Your task to perform on an android device: turn on javascript in the chrome app Image 0: 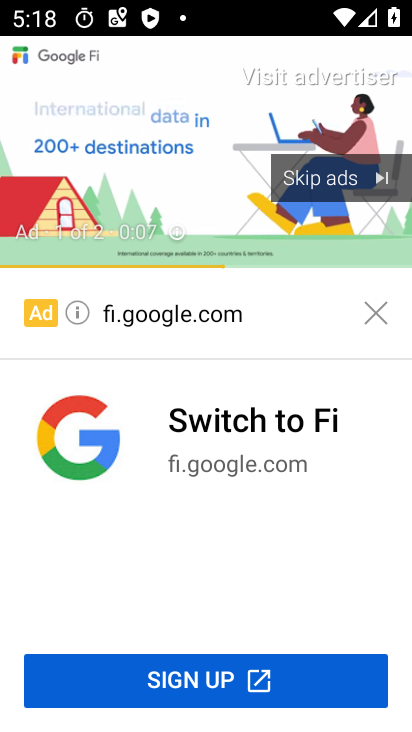
Step 0: press home button
Your task to perform on an android device: turn on javascript in the chrome app Image 1: 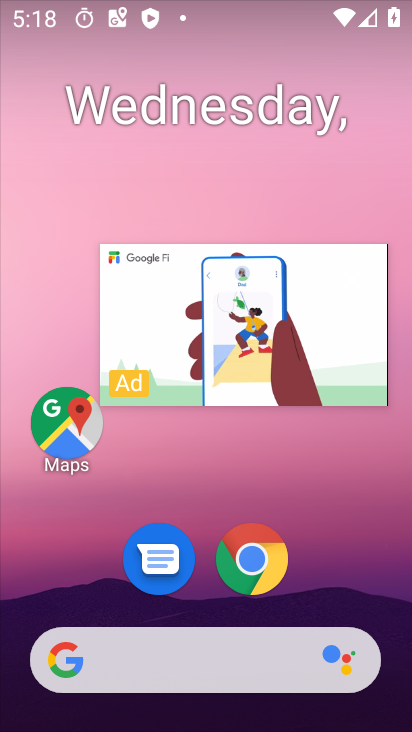
Step 1: click (271, 559)
Your task to perform on an android device: turn on javascript in the chrome app Image 2: 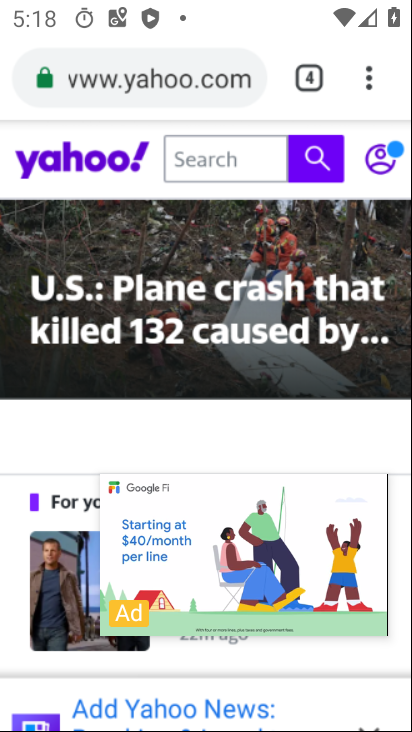
Step 2: click (370, 75)
Your task to perform on an android device: turn on javascript in the chrome app Image 3: 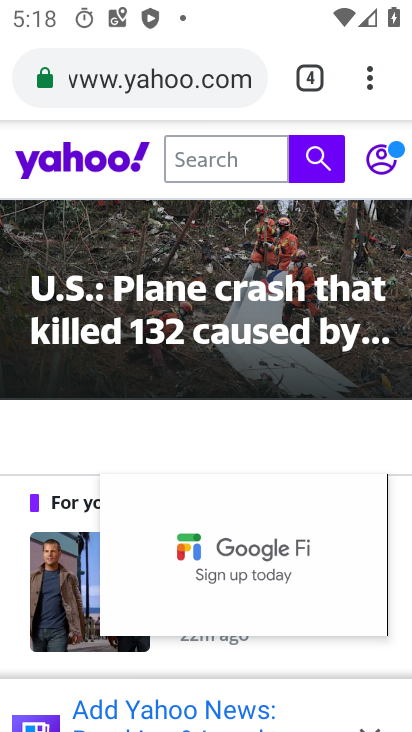
Step 3: click (360, 76)
Your task to perform on an android device: turn on javascript in the chrome app Image 4: 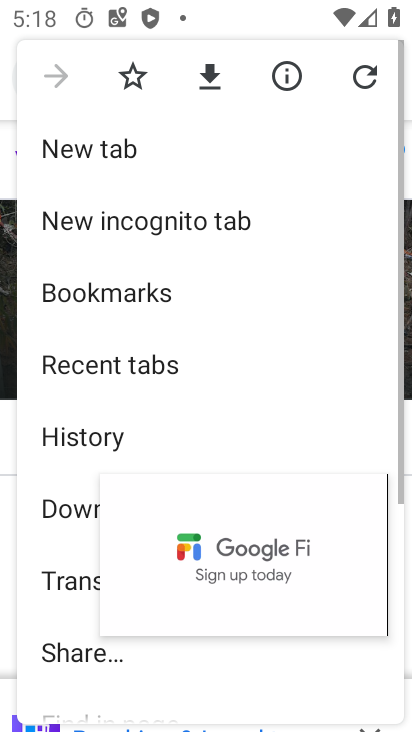
Step 4: drag from (68, 582) to (89, 186)
Your task to perform on an android device: turn on javascript in the chrome app Image 5: 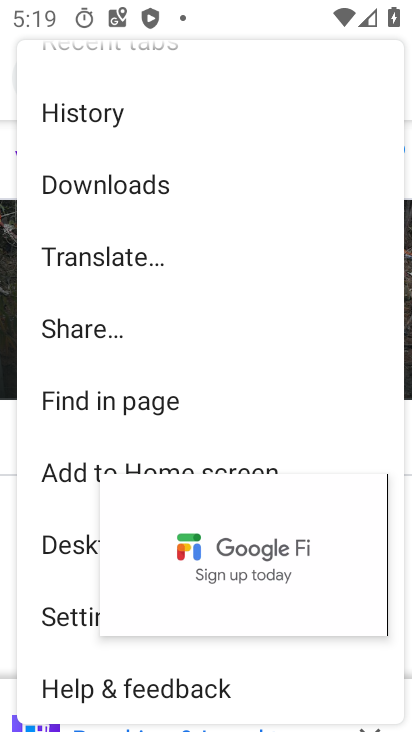
Step 5: click (68, 613)
Your task to perform on an android device: turn on javascript in the chrome app Image 6: 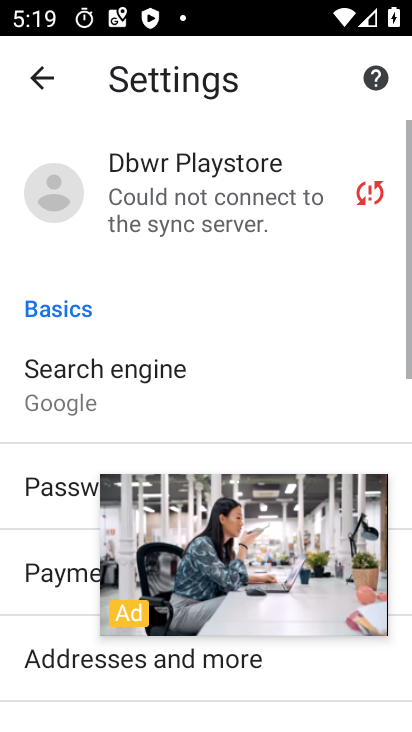
Step 6: drag from (63, 597) to (103, 174)
Your task to perform on an android device: turn on javascript in the chrome app Image 7: 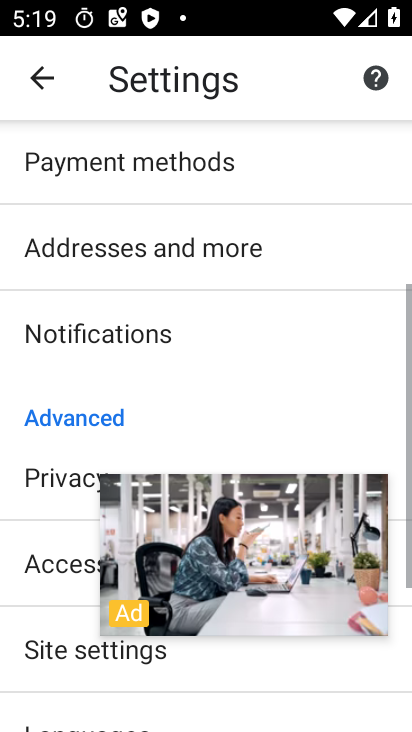
Step 7: drag from (62, 548) to (60, 200)
Your task to perform on an android device: turn on javascript in the chrome app Image 8: 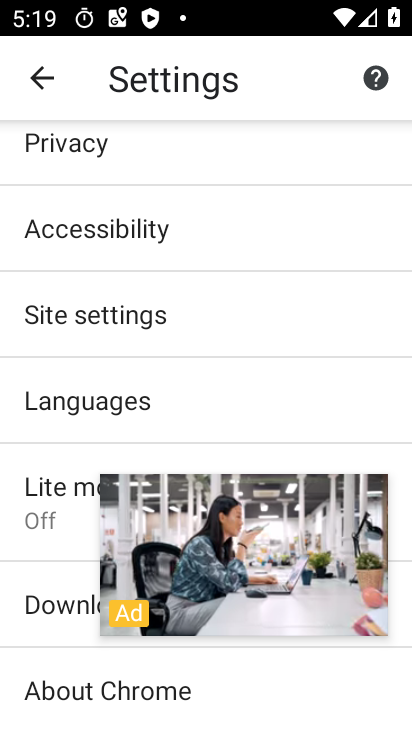
Step 8: click (76, 310)
Your task to perform on an android device: turn on javascript in the chrome app Image 9: 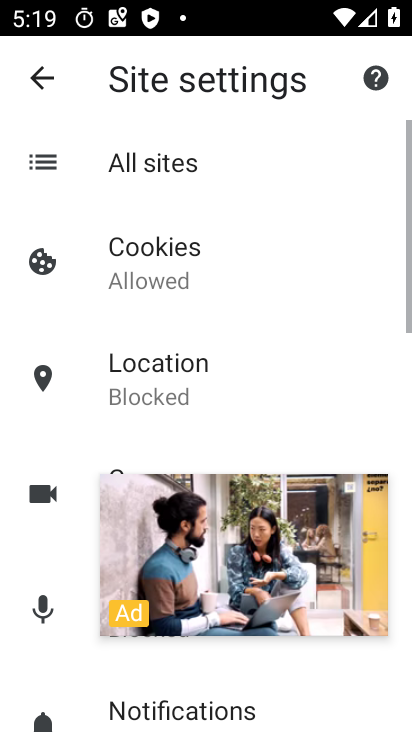
Step 9: drag from (61, 541) to (117, 178)
Your task to perform on an android device: turn on javascript in the chrome app Image 10: 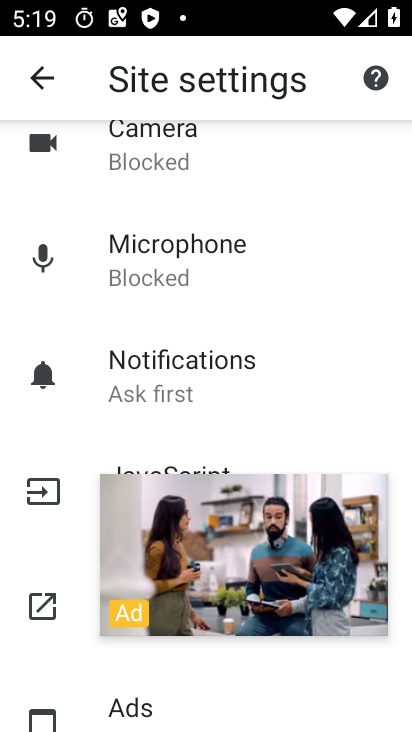
Step 10: click (68, 486)
Your task to perform on an android device: turn on javascript in the chrome app Image 11: 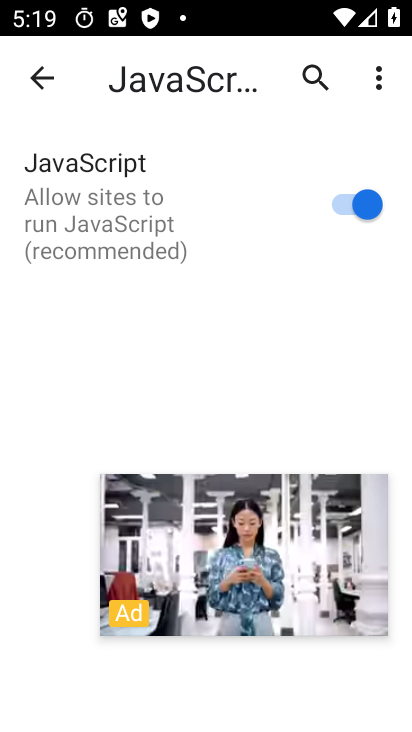
Step 11: task complete